Your task to perform on an android device: delete the emails in spam in the gmail app Image 0: 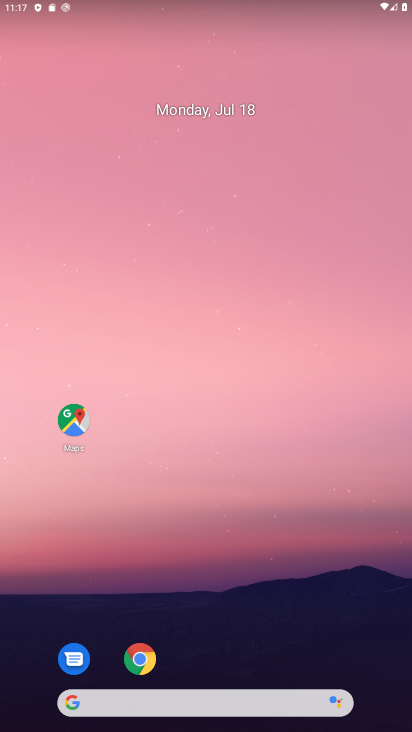
Step 0: drag from (362, 669) to (309, 69)
Your task to perform on an android device: delete the emails in spam in the gmail app Image 1: 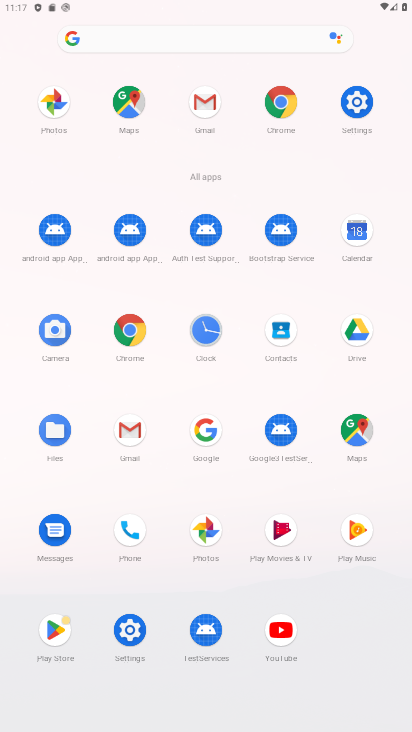
Step 1: click (207, 108)
Your task to perform on an android device: delete the emails in spam in the gmail app Image 2: 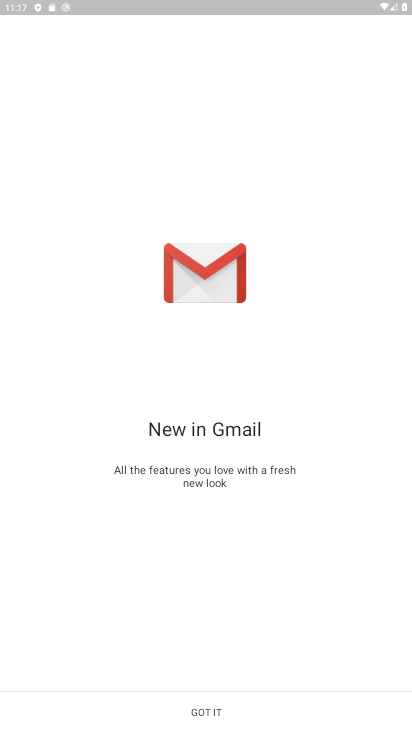
Step 2: click (200, 709)
Your task to perform on an android device: delete the emails in spam in the gmail app Image 3: 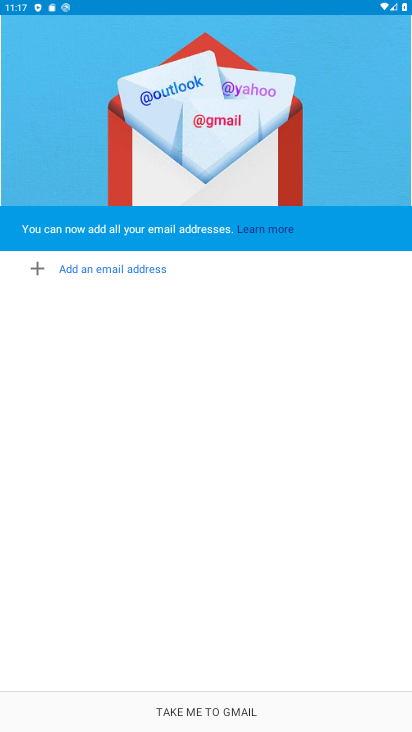
Step 3: task complete